Your task to perform on an android device: Open the phone app and click the voicemail tab. Image 0: 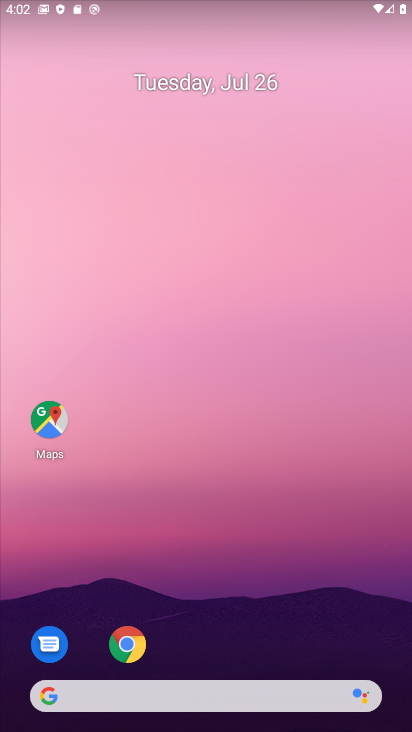
Step 0: drag from (401, 689) to (337, 126)
Your task to perform on an android device: Open the phone app and click the voicemail tab. Image 1: 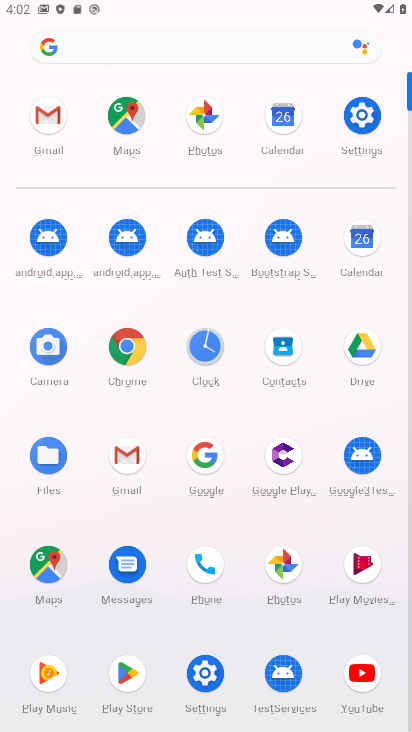
Step 1: click (202, 564)
Your task to perform on an android device: Open the phone app and click the voicemail tab. Image 2: 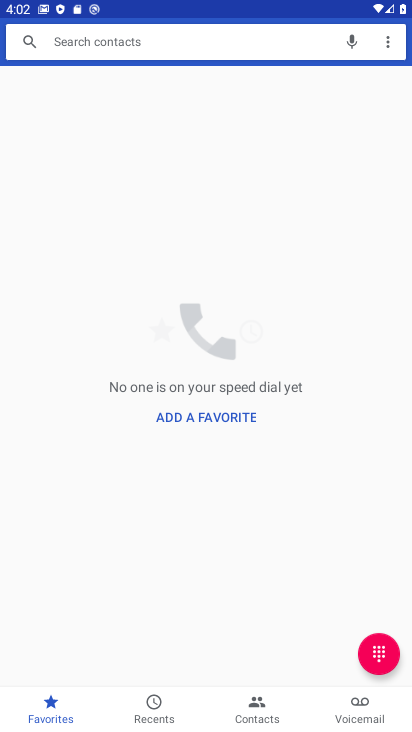
Step 2: click (362, 706)
Your task to perform on an android device: Open the phone app and click the voicemail tab. Image 3: 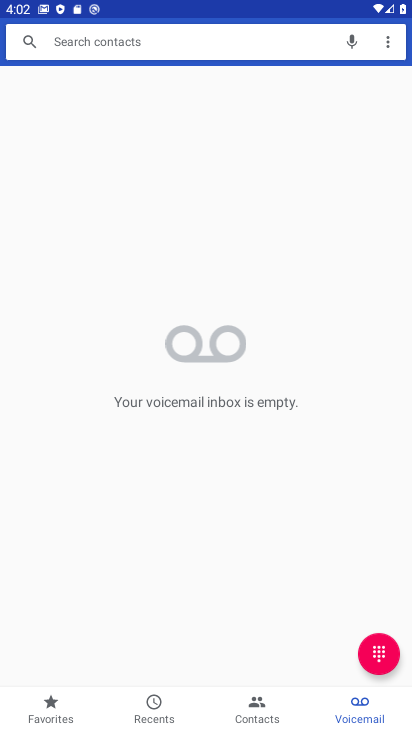
Step 3: task complete